Your task to perform on an android device: open device folders in google photos Image 0: 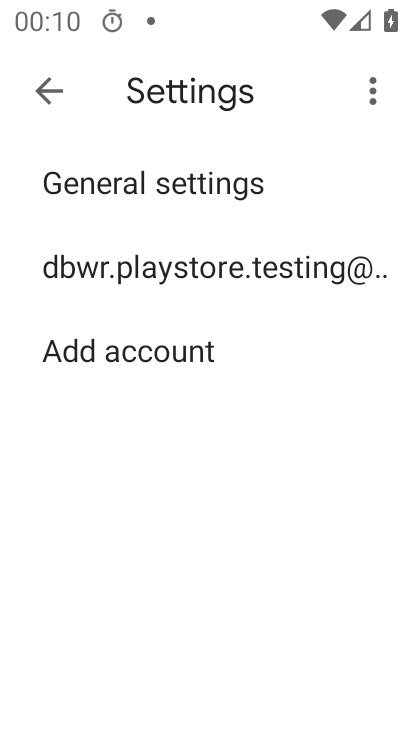
Step 0: press home button
Your task to perform on an android device: open device folders in google photos Image 1: 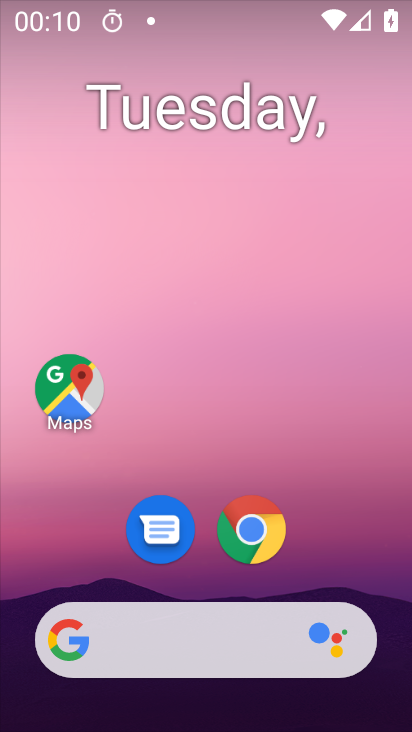
Step 1: click (352, 166)
Your task to perform on an android device: open device folders in google photos Image 2: 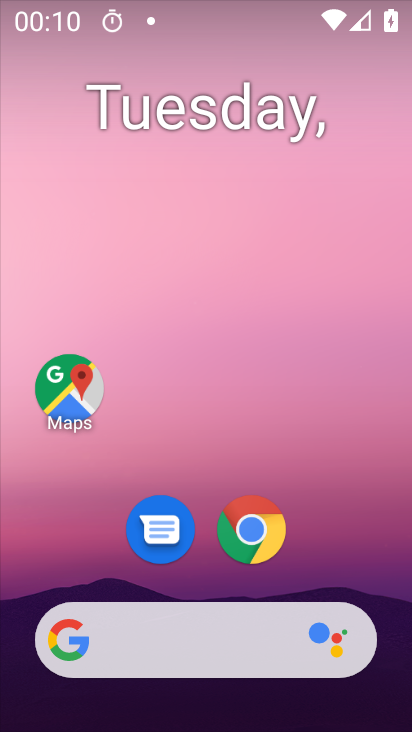
Step 2: drag from (334, 525) to (339, 2)
Your task to perform on an android device: open device folders in google photos Image 3: 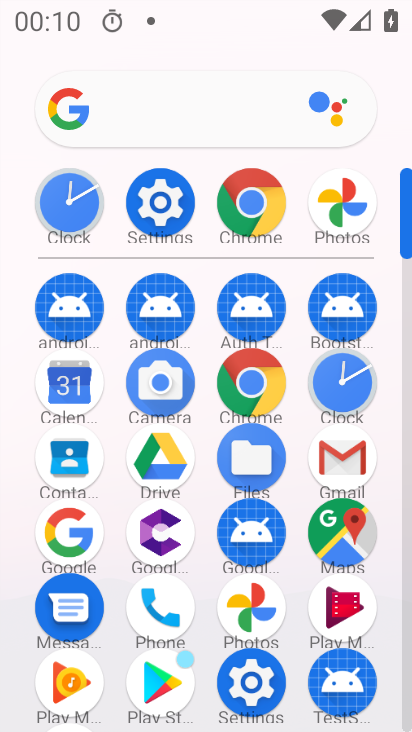
Step 3: click (355, 243)
Your task to perform on an android device: open device folders in google photos Image 4: 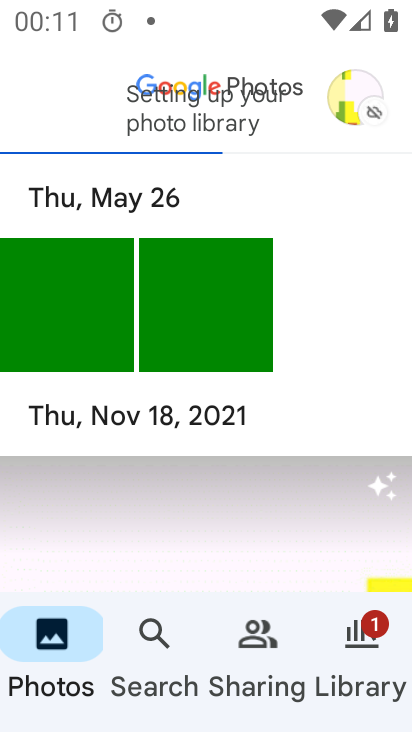
Step 4: click (365, 627)
Your task to perform on an android device: open device folders in google photos Image 5: 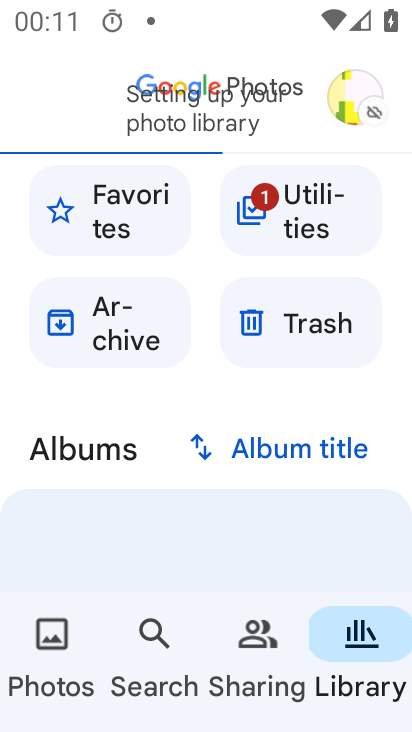
Step 5: drag from (240, 540) to (228, 5)
Your task to perform on an android device: open device folders in google photos Image 6: 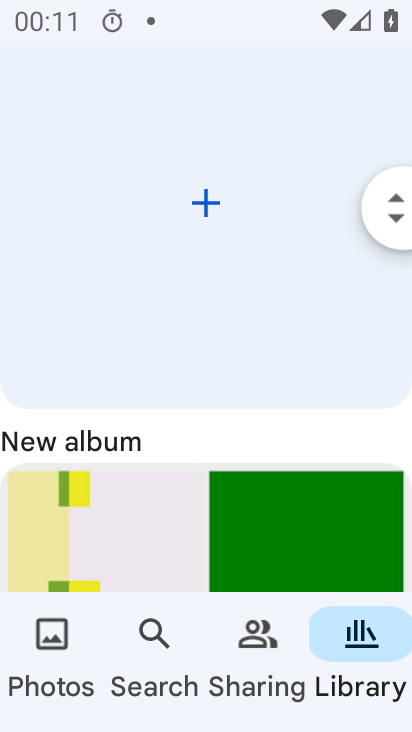
Step 6: click (348, 632)
Your task to perform on an android device: open device folders in google photos Image 7: 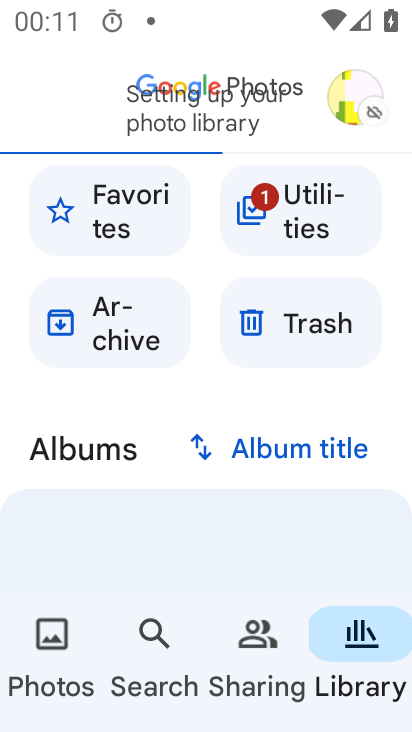
Step 7: click (360, 94)
Your task to perform on an android device: open device folders in google photos Image 8: 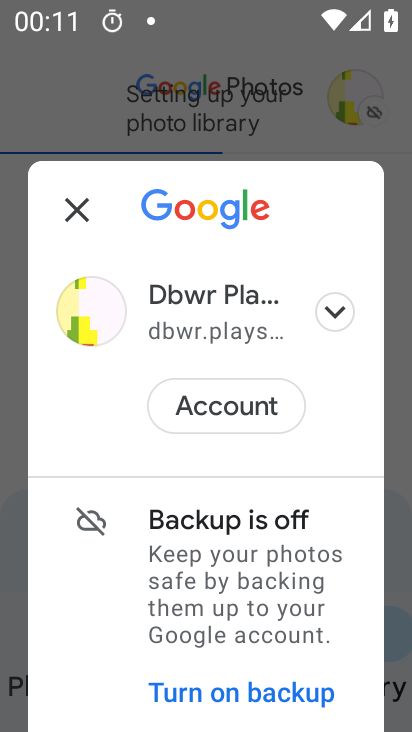
Step 8: drag from (161, 598) to (162, 230)
Your task to perform on an android device: open device folders in google photos Image 9: 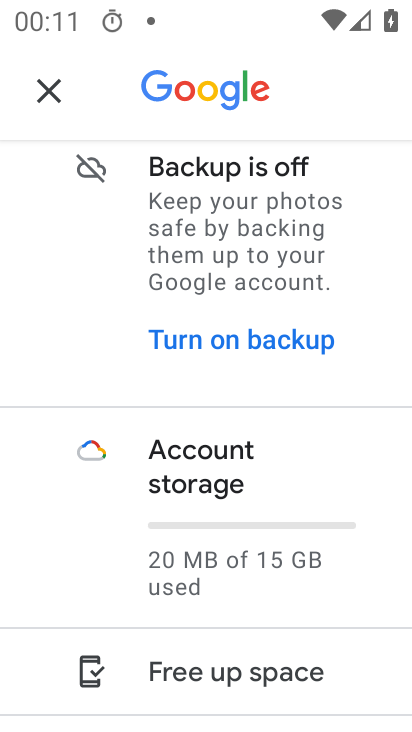
Step 9: drag from (239, 656) to (215, 200)
Your task to perform on an android device: open device folders in google photos Image 10: 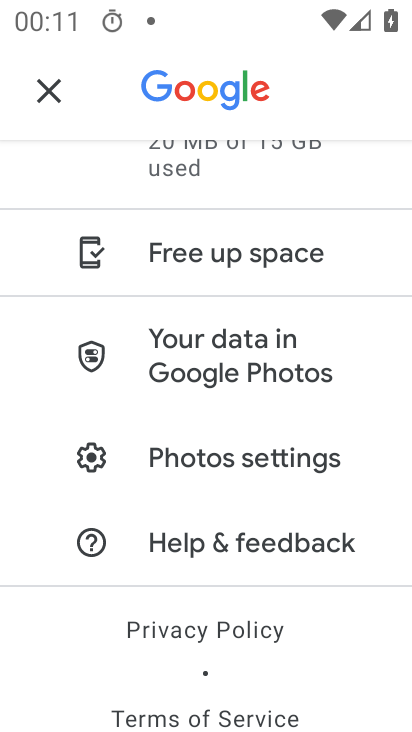
Step 10: click (181, 447)
Your task to perform on an android device: open device folders in google photos Image 11: 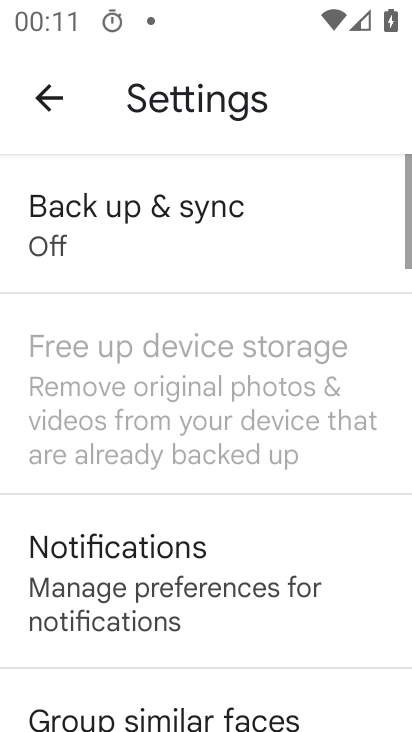
Step 11: drag from (248, 606) to (233, 273)
Your task to perform on an android device: open device folders in google photos Image 12: 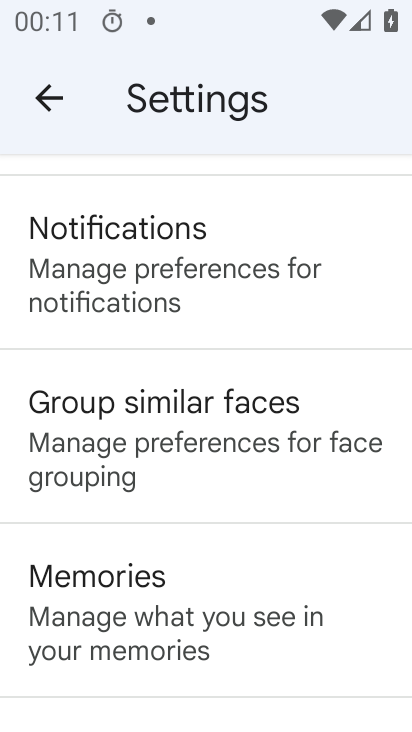
Step 12: drag from (269, 671) to (190, 148)
Your task to perform on an android device: open device folders in google photos Image 13: 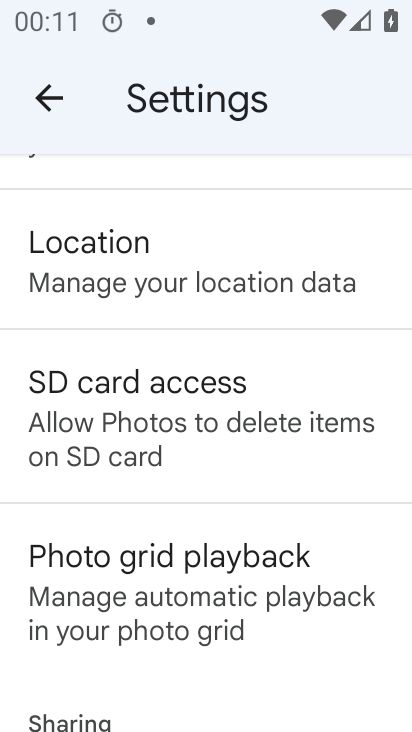
Step 13: drag from (224, 580) to (207, 202)
Your task to perform on an android device: open device folders in google photos Image 14: 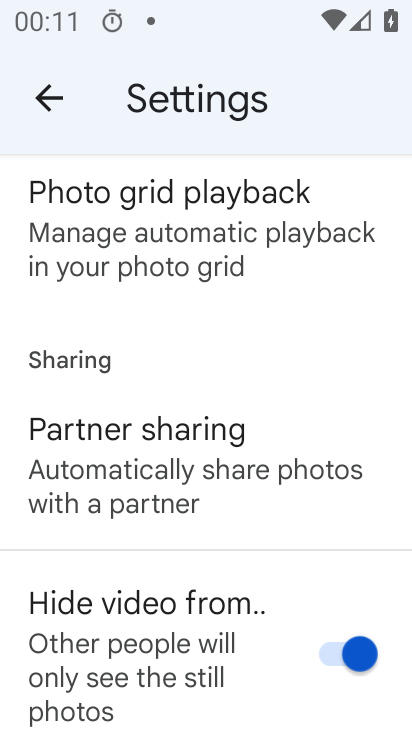
Step 14: drag from (242, 555) to (248, 203)
Your task to perform on an android device: open device folders in google photos Image 15: 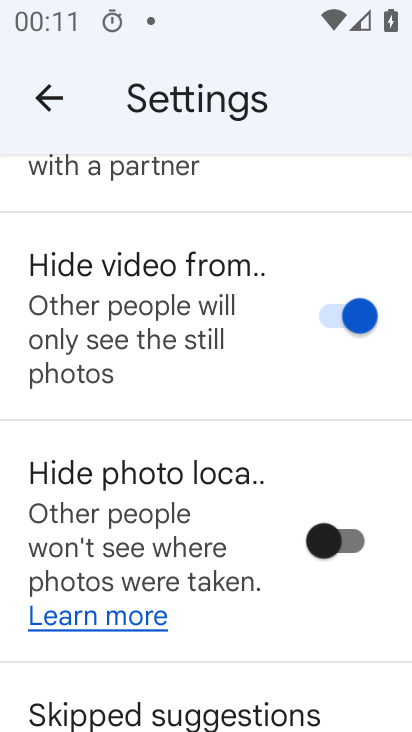
Step 15: drag from (237, 660) to (212, 287)
Your task to perform on an android device: open device folders in google photos Image 16: 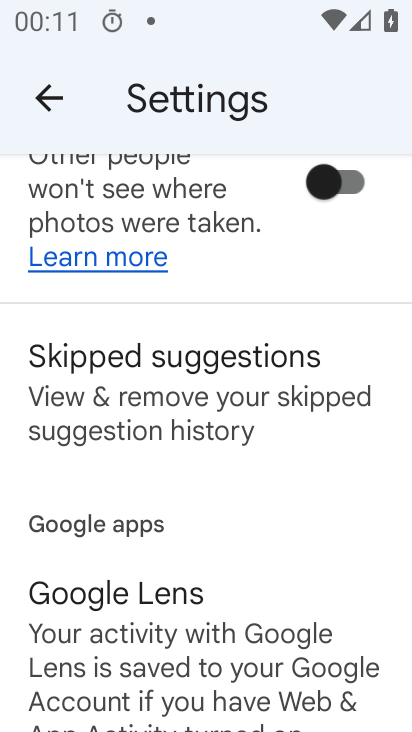
Step 16: drag from (217, 553) to (188, 239)
Your task to perform on an android device: open device folders in google photos Image 17: 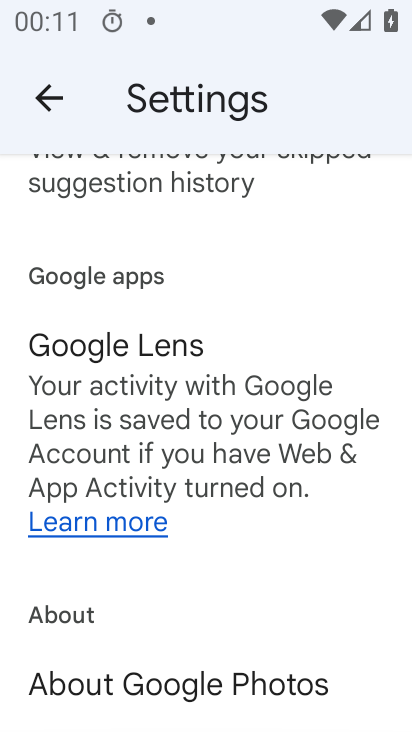
Step 17: drag from (213, 602) to (221, 220)
Your task to perform on an android device: open device folders in google photos Image 18: 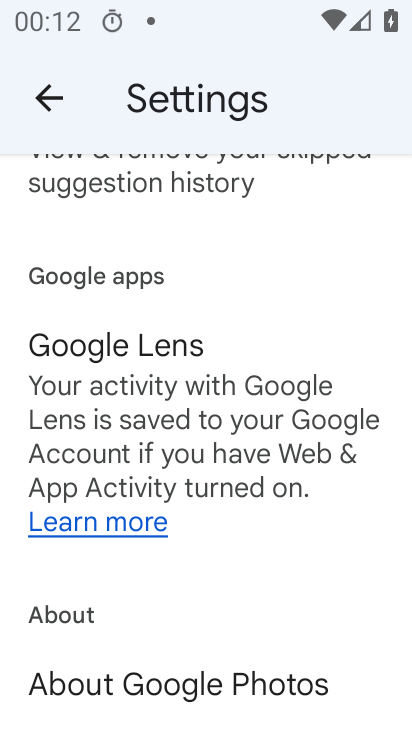
Step 18: click (42, 97)
Your task to perform on an android device: open device folders in google photos Image 19: 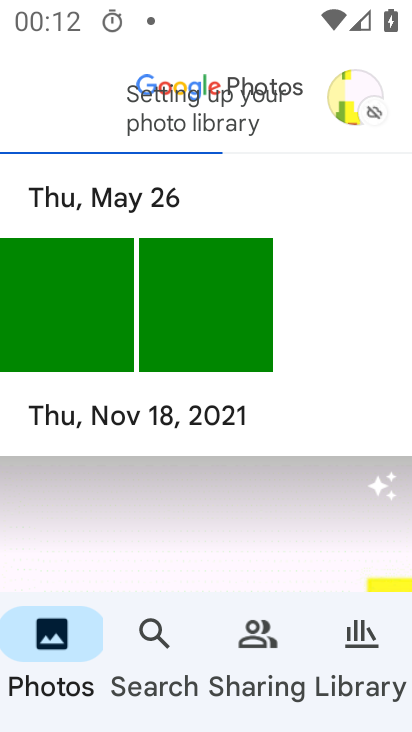
Step 19: click (336, 95)
Your task to perform on an android device: open device folders in google photos Image 20: 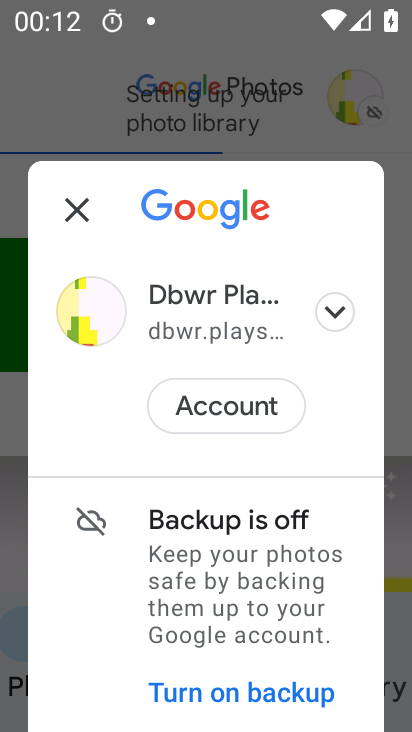
Step 20: drag from (208, 456) to (214, 271)
Your task to perform on an android device: open device folders in google photos Image 21: 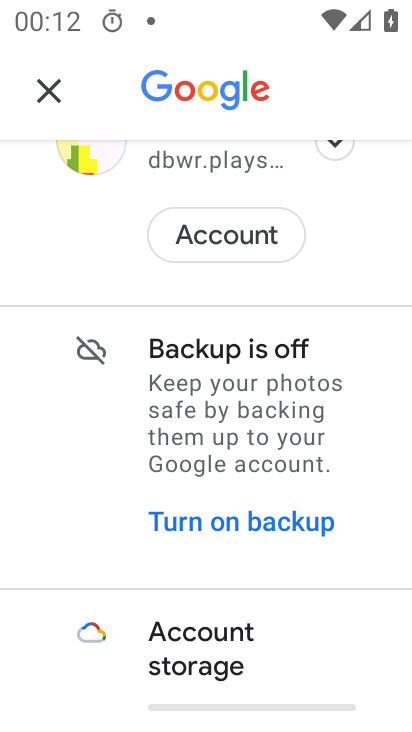
Step 21: drag from (224, 457) to (222, 212)
Your task to perform on an android device: open device folders in google photos Image 22: 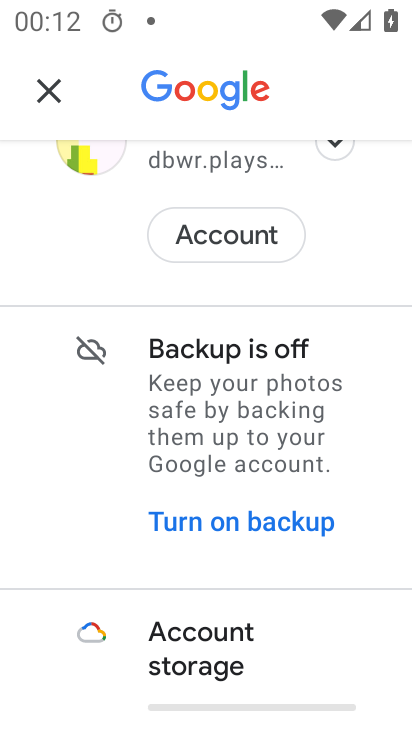
Step 22: drag from (217, 575) to (232, 269)
Your task to perform on an android device: open device folders in google photos Image 23: 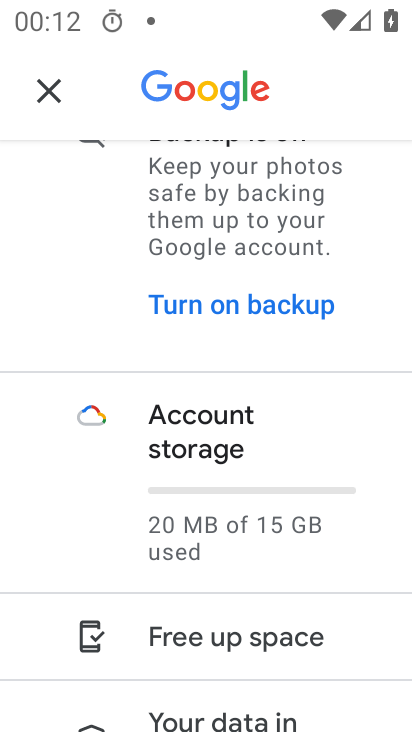
Step 23: drag from (214, 576) to (188, 171)
Your task to perform on an android device: open device folders in google photos Image 24: 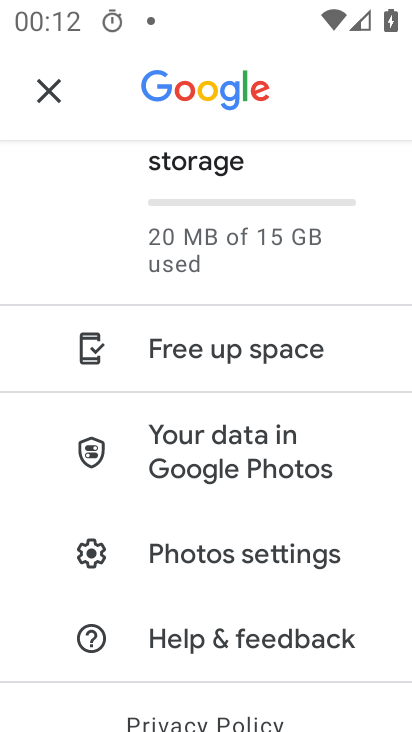
Step 24: click (210, 444)
Your task to perform on an android device: open device folders in google photos Image 25: 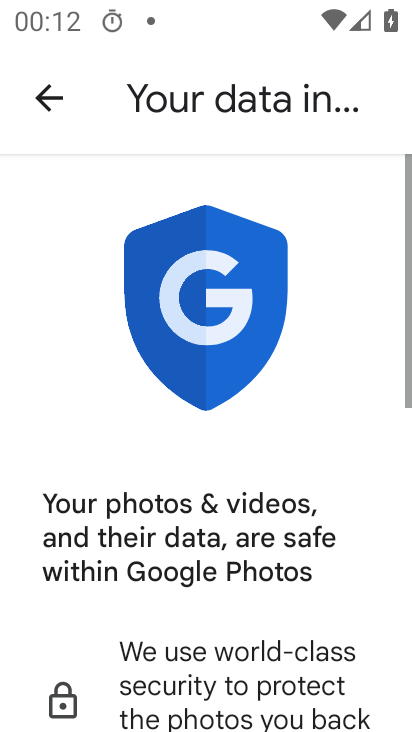
Step 25: drag from (301, 514) to (241, 145)
Your task to perform on an android device: open device folders in google photos Image 26: 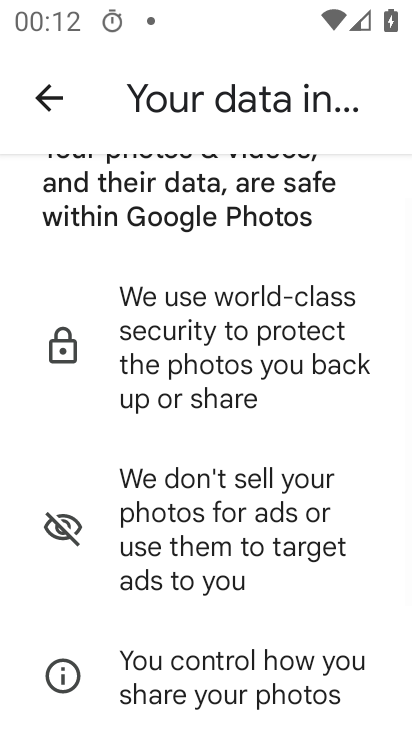
Step 26: click (42, 93)
Your task to perform on an android device: open device folders in google photos Image 27: 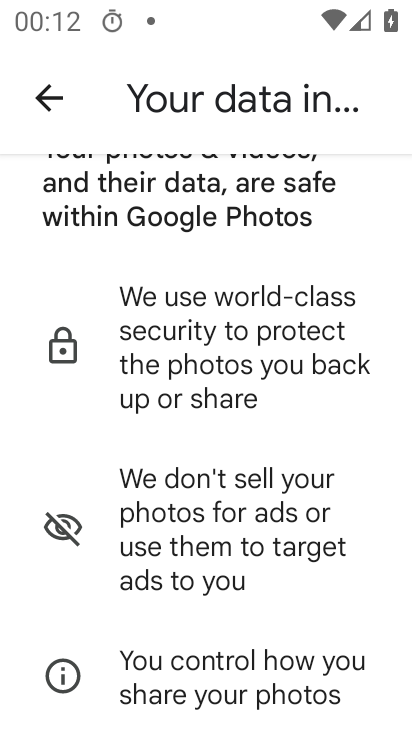
Step 27: drag from (258, 510) to (225, 217)
Your task to perform on an android device: open device folders in google photos Image 28: 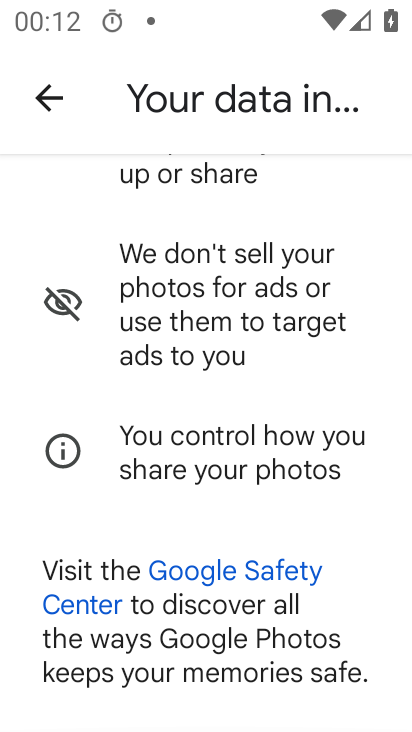
Step 28: drag from (210, 444) to (227, 216)
Your task to perform on an android device: open device folders in google photos Image 29: 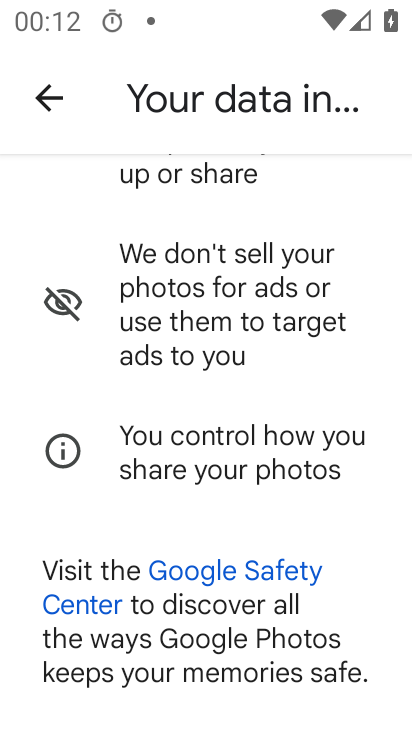
Step 29: press back button
Your task to perform on an android device: open device folders in google photos Image 30: 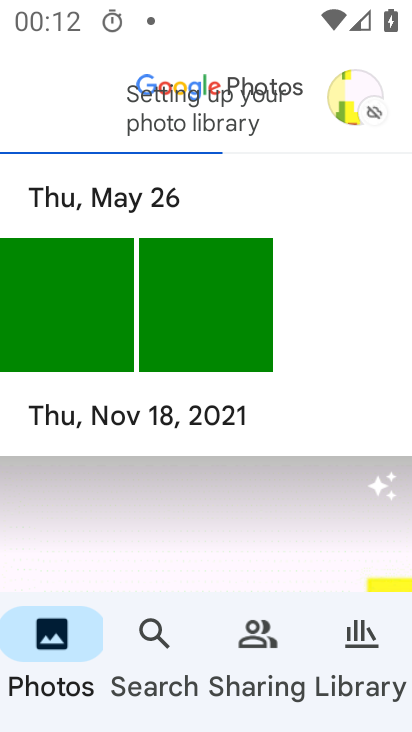
Step 30: click (348, 93)
Your task to perform on an android device: open device folders in google photos Image 31: 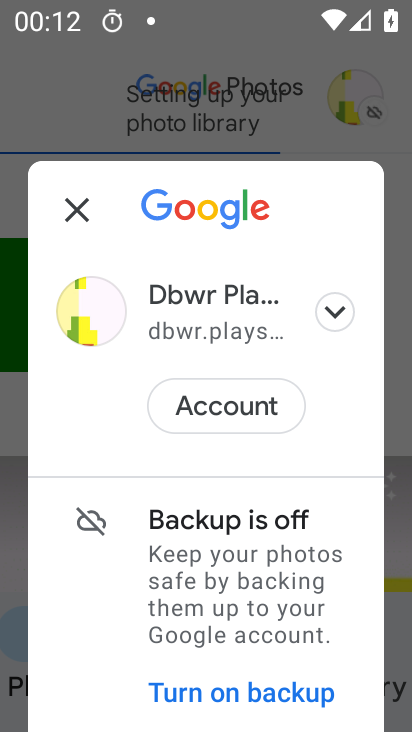
Step 31: click (199, 301)
Your task to perform on an android device: open device folders in google photos Image 32: 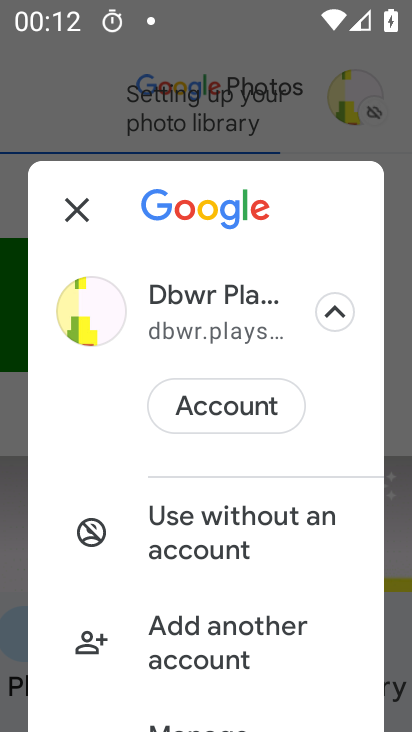
Step 32: drag from (274, 598) to (244, 269)
Your task to perform on an android device: open device folders in google photos Image 33: 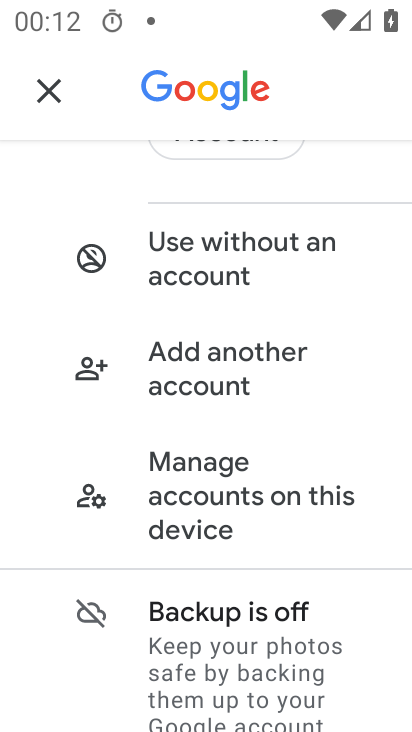
Step 33: drag from (269, 598) to (261, 263)
Your task to perform on an android device: open device folders in google photos Image 34: 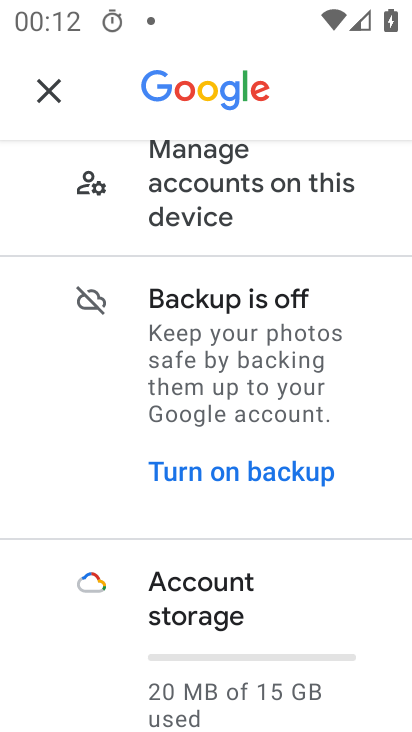
Step 34: click (231, 197)
Your task to perform on an android device: open device folders in google photos Image 35: 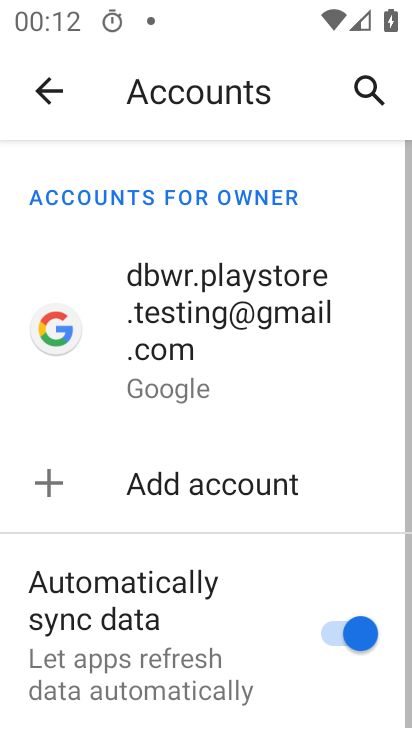
Step 35: task complete